Your task to perform on an android device: Show me popular videos on Youtube Image 0: 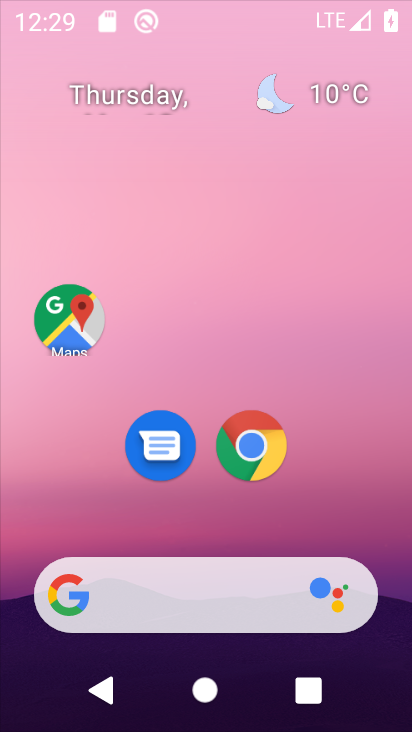
Step 0: click (253, 446)
Your task to perform on an android device: Show me popular videos on Youtube Image 1: 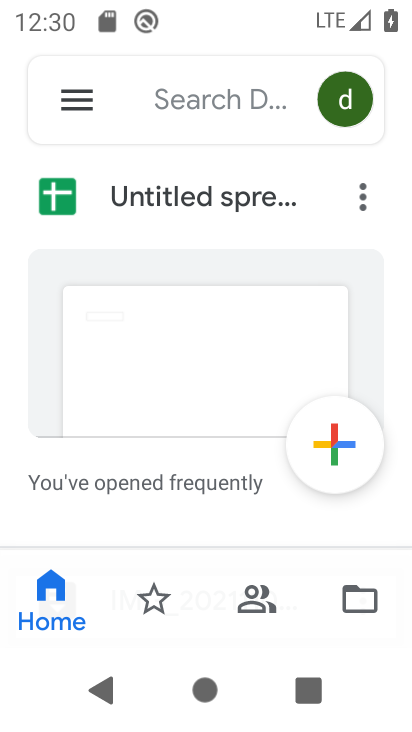
Step 1: press back button
Your task to perform on an android device: Show me popular videos on Youtube Image 2: 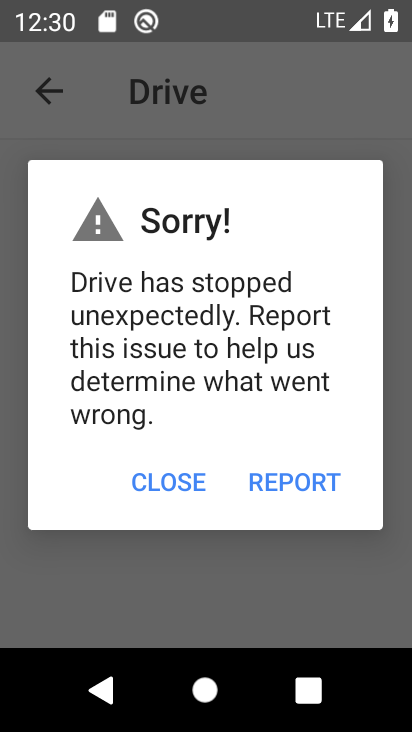
Step 2: press back button
Your task to perform on an android device: Show me popular videos on Youtube Image 3: 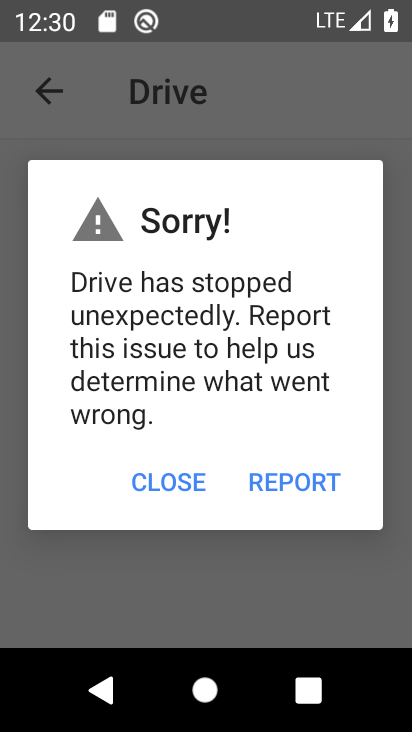
Step 3: press back button
Your task to perform on an android device: Show me popular videos on Youtube Image 4: 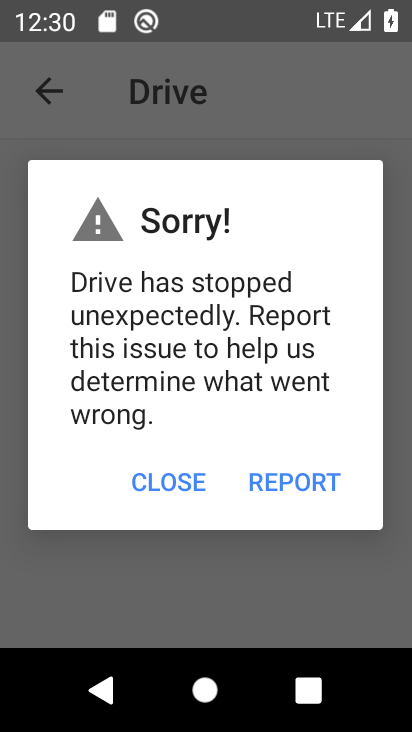
Step 4: press home button
Your task to perform on an android device: Show me popular videos on Youtube Image 5: 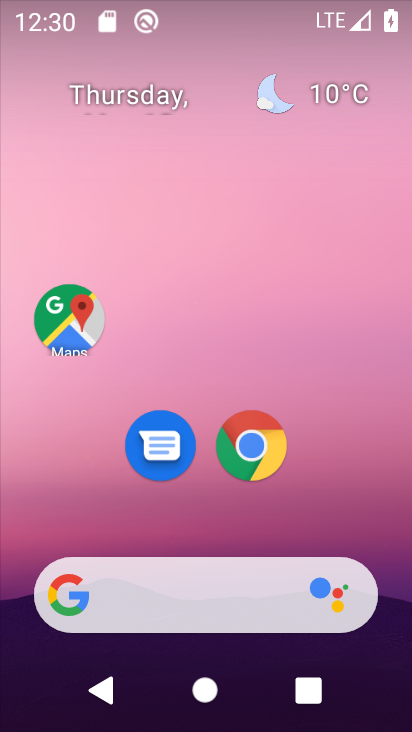
Step 5: drag from (184, 475) to (291, 12)
Your task to perform on an android device: Show me popular videos on Youtube Image 6: 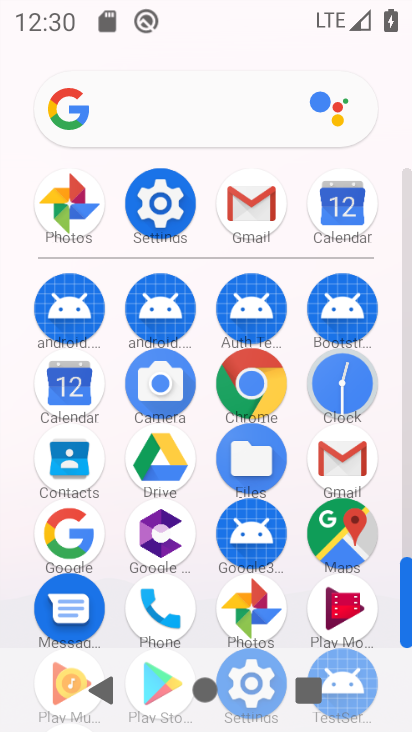
Step 6: drag from (195, 563) to (245, 68)
Your task to perform on an android device: Show me popular videos on Youtube Image 7: 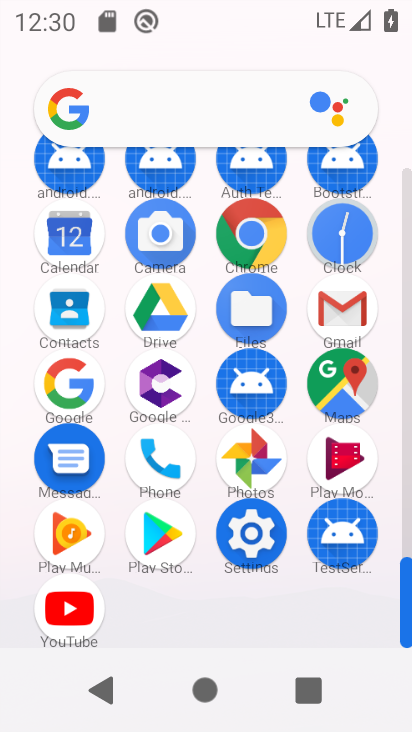
Step 7: click (69, 620)
Your task to perform on an android device: Show me popular videos on Youtube Image 8: 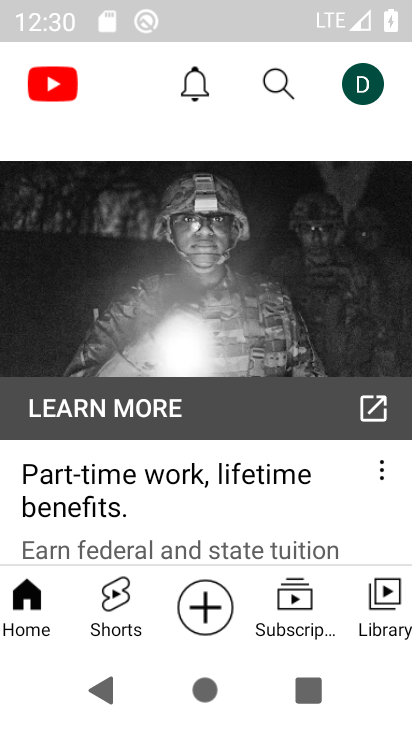
Step 8: click (23, 601)
Your task to perform on an android device: Show me popular videos on Youtube Image 9: 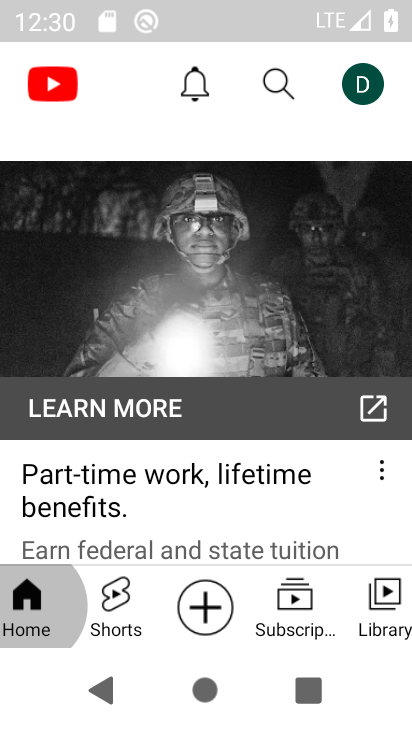
Step 9: drag from (163, 513) to (148, 682)
Your task to perform on an android device: Show me popular videos on Youtube Image 10: 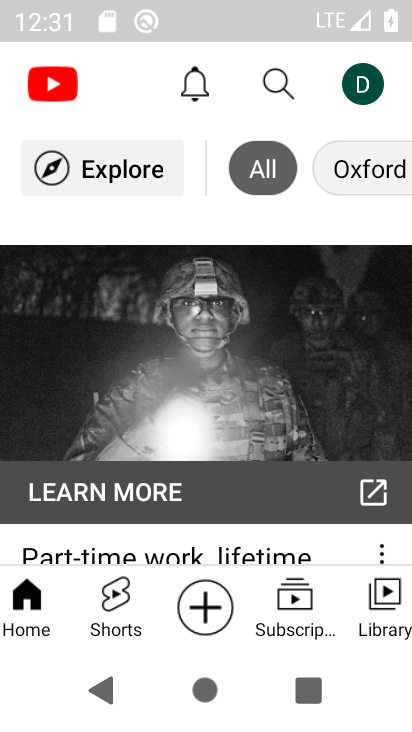
Step 10: click (81, 163)
Your task to perform on an android device: Show me popular videos on Youtube Image 11: 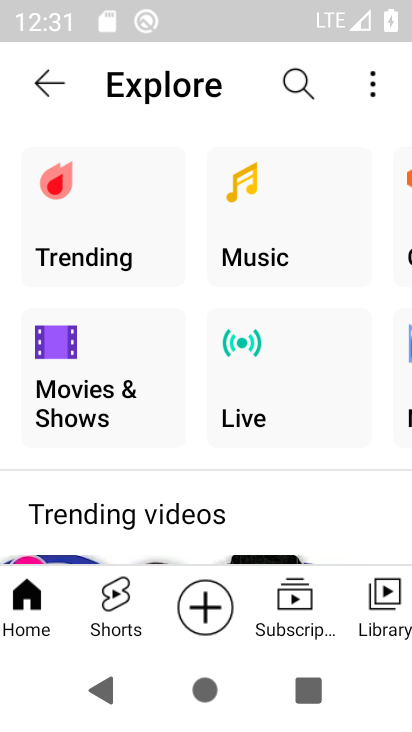
Step 11: click (69, 233)
Your task to perform on an android device: Show me popular videos on Youtube Image 12: 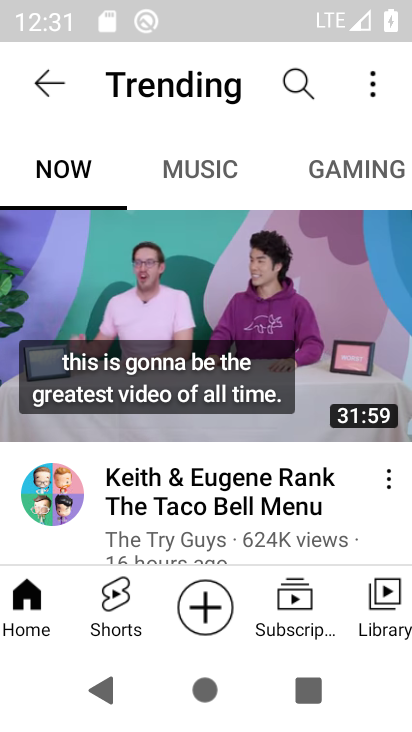
Step 12: task complete